Your task to perform on an android device: turn smart compose on in the gmail app Image 0: 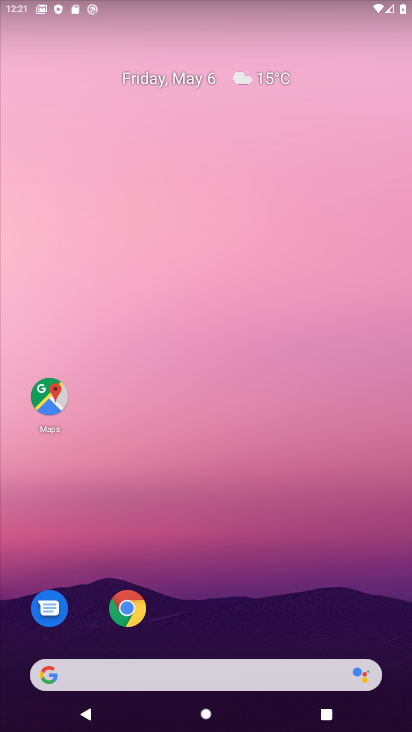
Step 0: drag from (196, 626) to (203, 249)
Your task to perform on an android device: turn smart compose on in the gmail app Image 1: 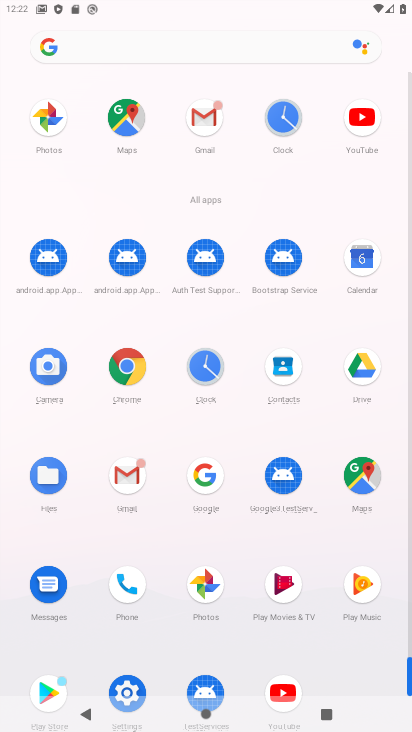
Step 1: drag from (241, 646) to (253, 271)
Your task to perform on an android device: turn smart compose on in the gmail app Image 2: 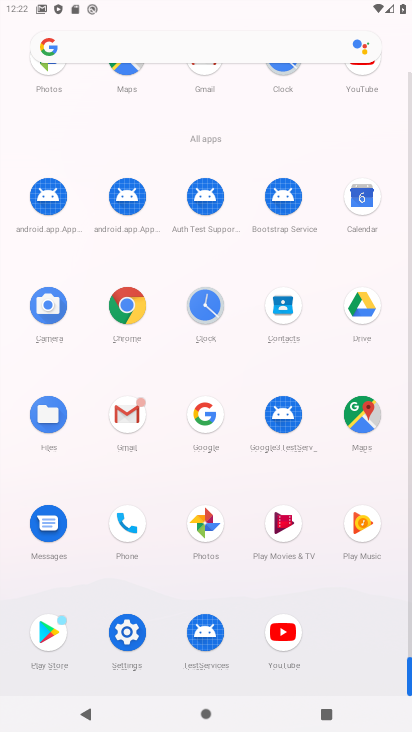
Step 2: drag from (248, 624) to (218, 229)
Your task to perform on an android device: turn smart compose on in the gmail app Image 3: 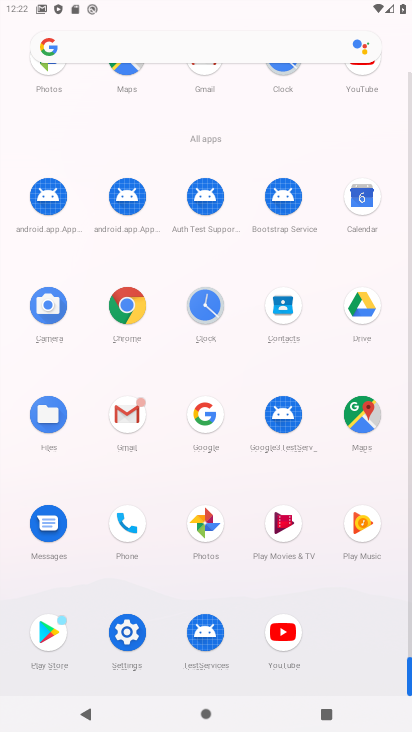
Step 3: drag from (235, 579) to (242, 210)
Your task to perform on an android device: turn smart compose on in the gmail app Image 4: 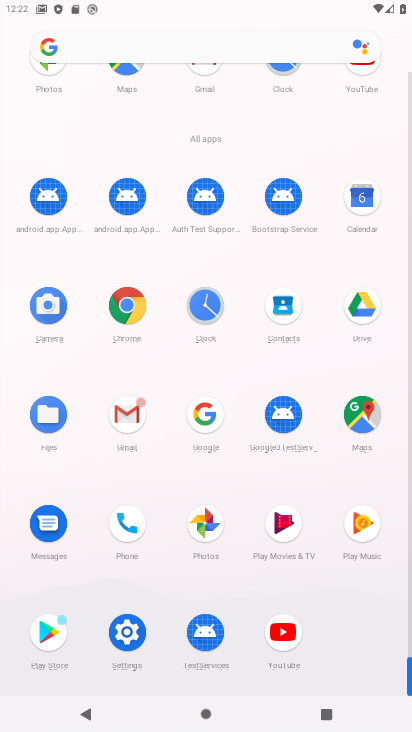
Step 4: drag from (245, 643) to (214, 353)
Your task to perform on an android device: turn smart compose on in the gmail app Image 5: 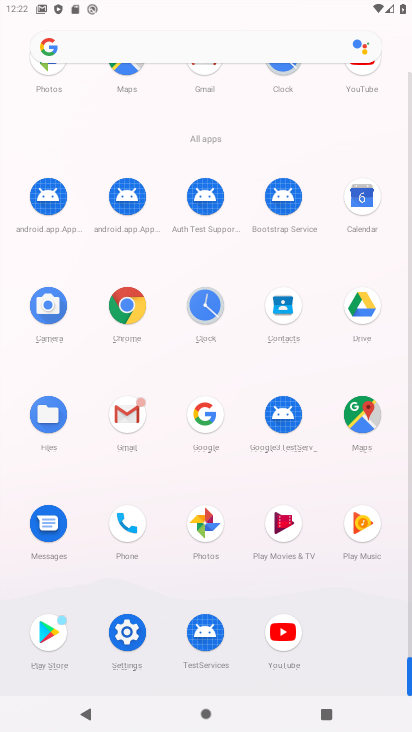
Step 5: click (117, 404)
Your task to perform on an android device: turn smart compose on in the gmail app Image 6: 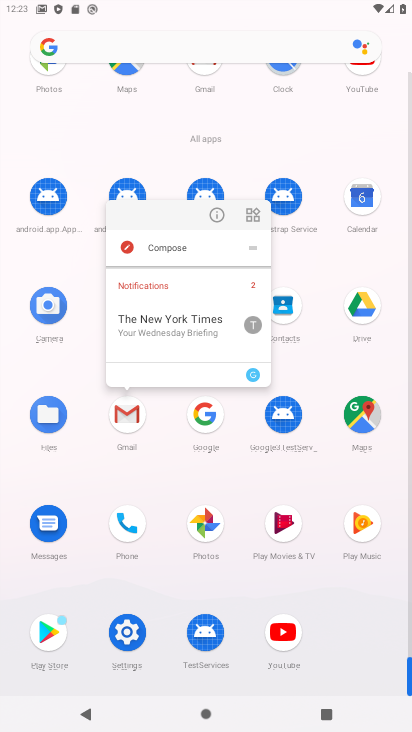
Step 6: click (209, 210)
Your task to perform on an android device: turn smart compose on in the gmail app Image 7: 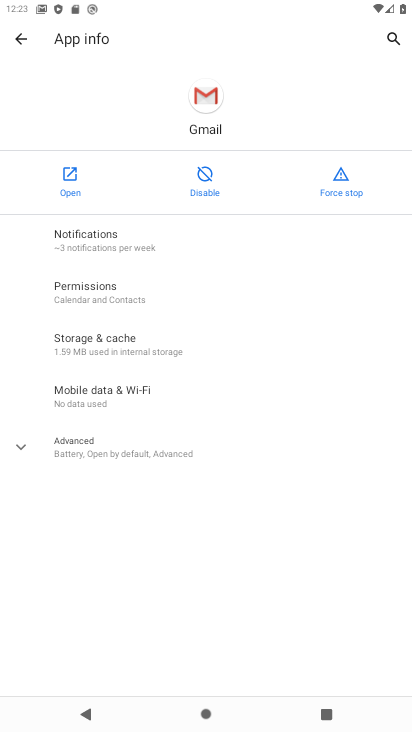
Step 7: click (80, 166)
Your task to perform on an android device: turn smart compose on in the gmail app Image 8: 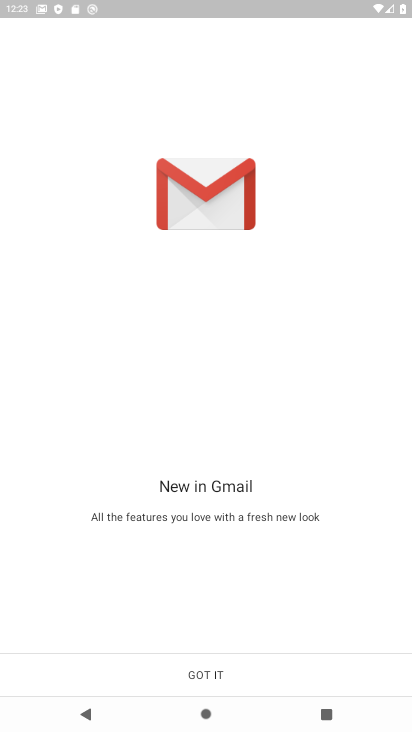
Step 8: click (201, 675)
Your task to perform on an android device: turn smart compose on in the gmail app Image 9: 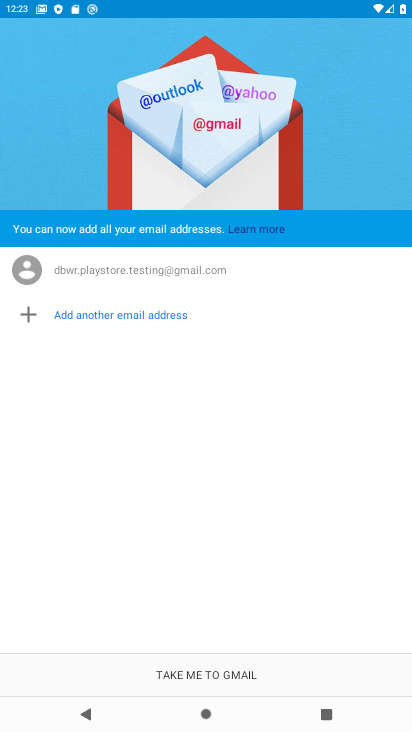
Step 9: click (212, 672)
Your task to perform on an android device: turn smart compose on in the gmail app Image 10: 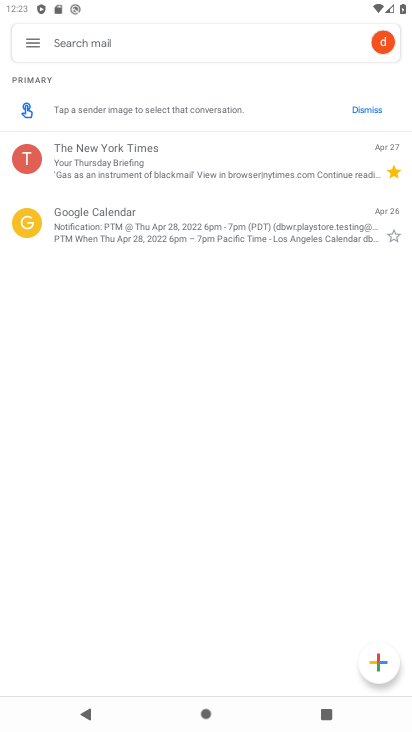
Step 10: click (33, 44)
Your task to perform on an android device: turn smart compose on in the gmail app Image 11: 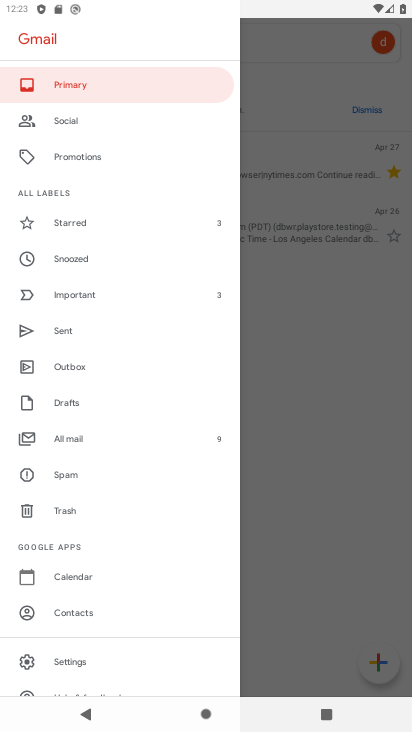
Step 11: click (352, 512)
Your task to perform on an android device: turn smart compose on in the gmail app Image 12: 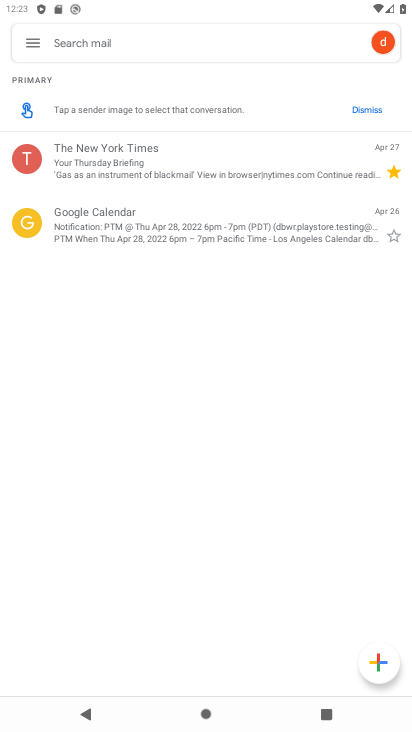
Step 12: drag from (180, 662) to (188, 383)
Your task to perform on an android device: turn smart compose on in the gmail app Image 13: 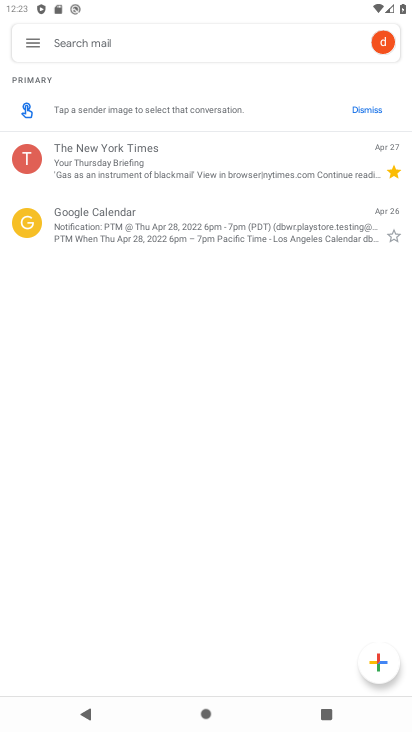
Step 13: click (153, 35)
Your task to perform on an android device: turn smart compose on in the gmail app Image 14: 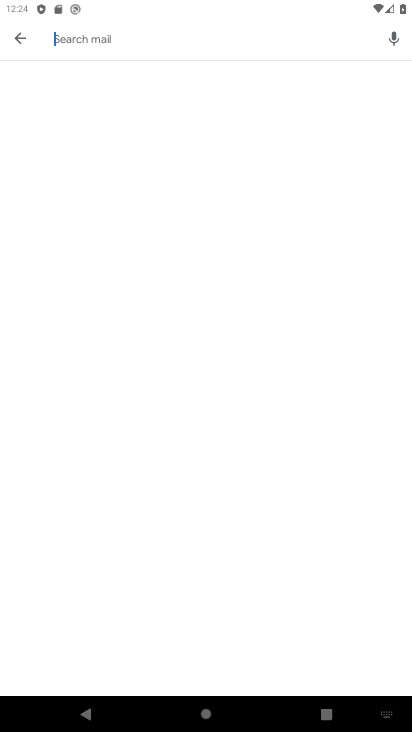
Step 14: click (15, 24)
Your task to perform on an android device: turn smart compose on in the gmail app Image 15: 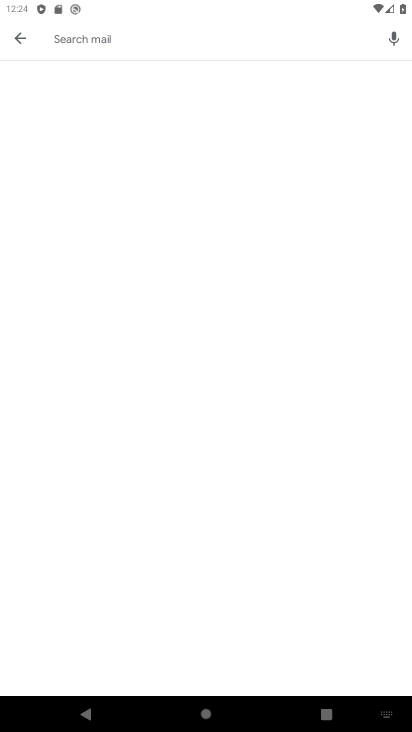
Step 15: click (18, 42)
Your task to perform on an android device: turn smart compose on in the gmail app Image 16: 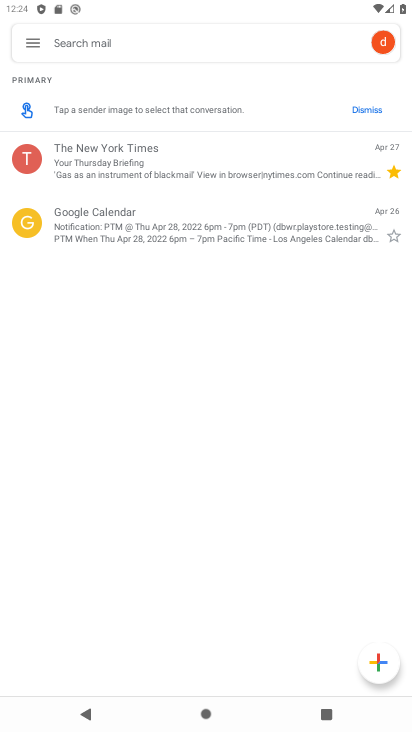
Step 16: click (21, 41)
Your task to perform on an android device: turn smart compose on in the gmail app Image 17: 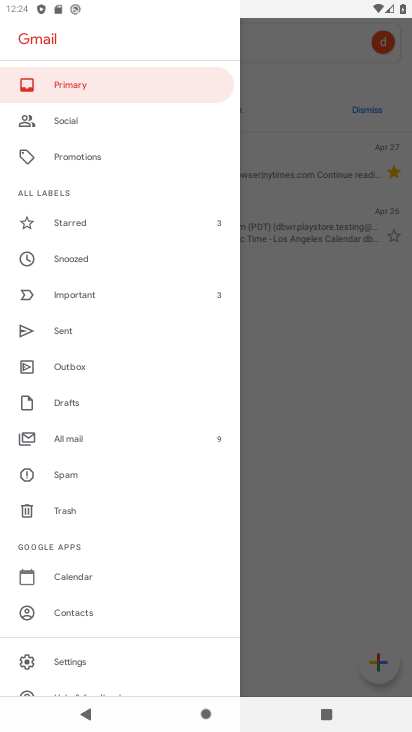
Step 17: click (76, 667)
Your task to perform on an android device: turn smart compose on in the gmail app Image 18: 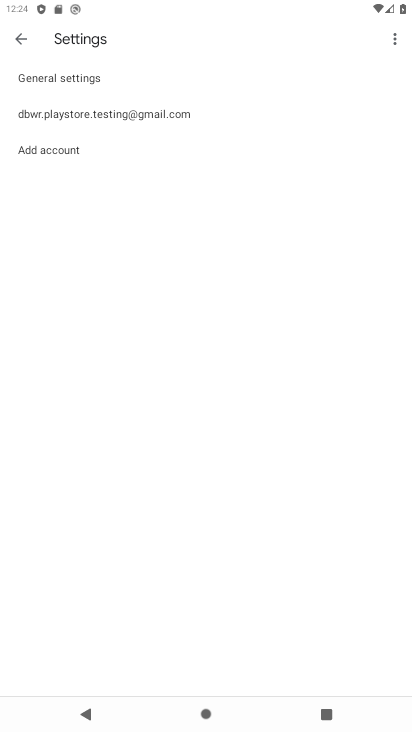
Step 18: click (176, 109)
Your task to perform on an android device: turn smart compose on in the gmail app Image 19: 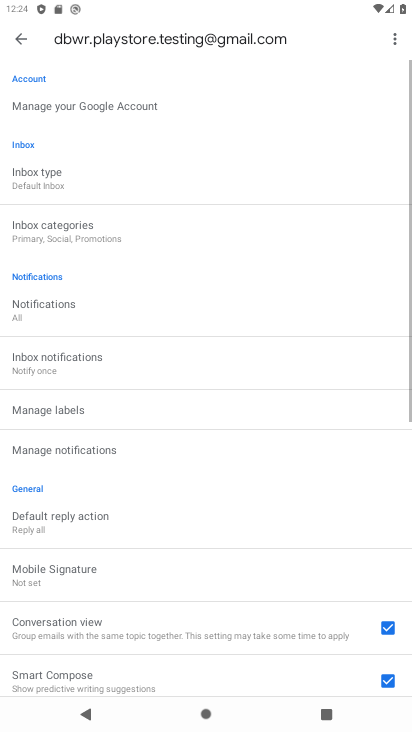
Step 19: task complete